Your task to perform on an android device: turn on wifi Image 0: 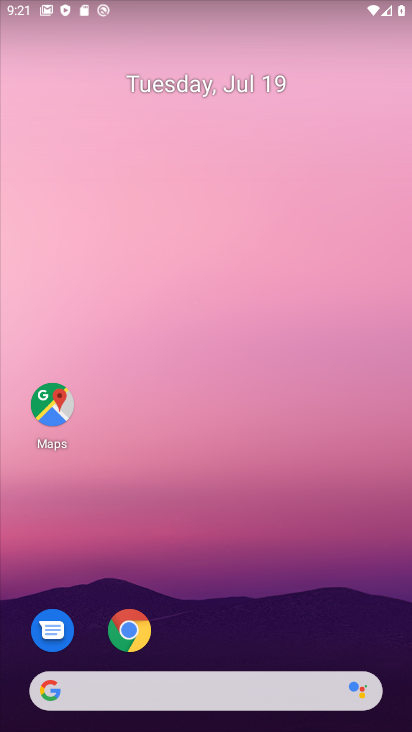
Step 0: drag from (207, 636) to (200, 13)
Your task to perform on an android device: turn on wifi Image 1: 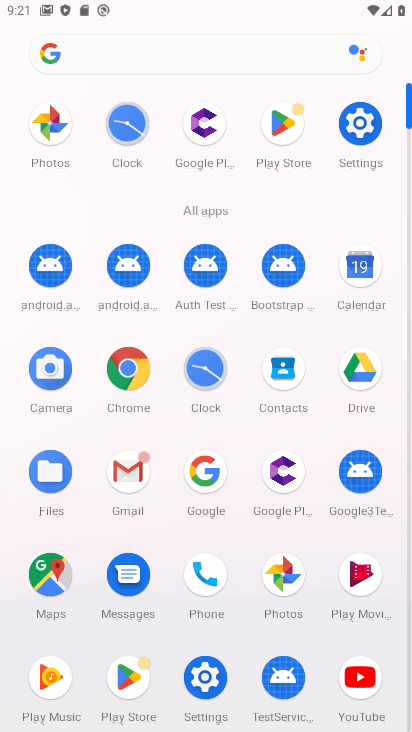
Step 1: click (359, 158)
Your task to perform on an android device: turn on wifi Image 2: 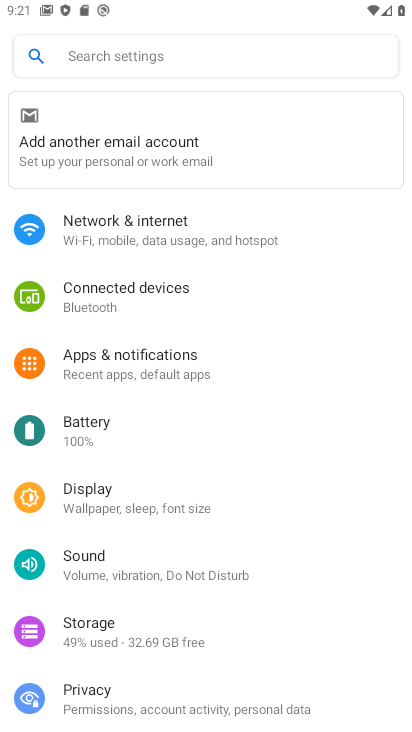
Step 2: click (149, 236)
Your task to perform on an android device: turn on wifi Image 3: 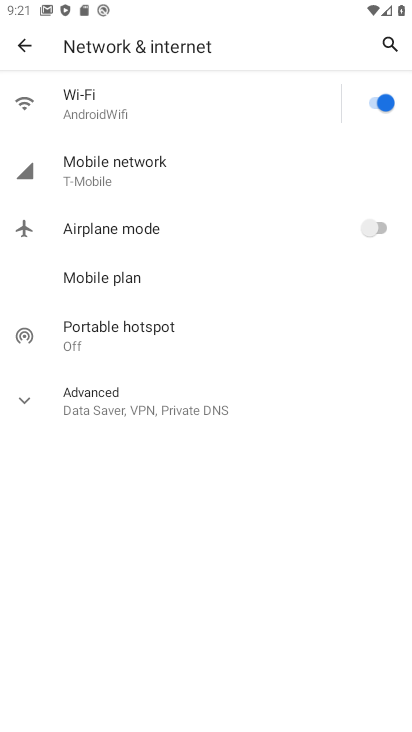
Step 3: task complete